Your task to perform on an android device: Open maps Image 0: 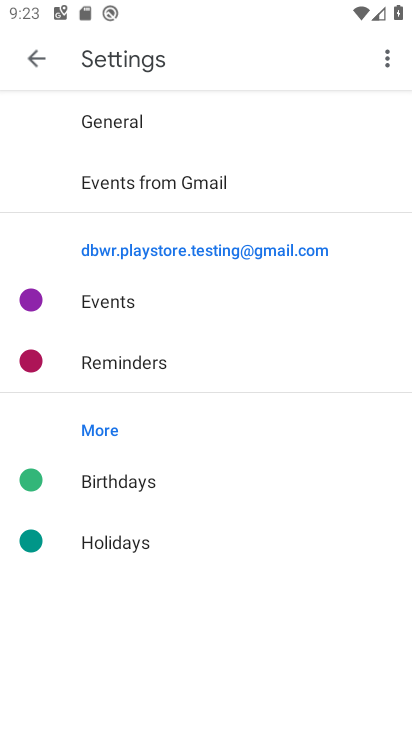
Step 0: press home button
Your task to perform on an android device: Open maps Image 1: 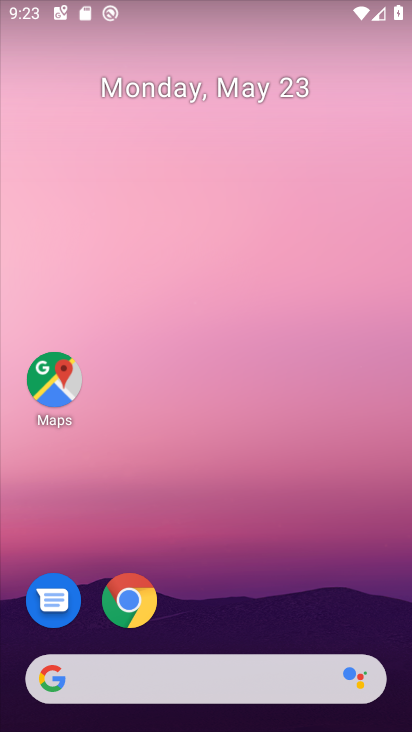
Step 1: drag from (206, 698) to (199, 144)
Your task to perform on an android device: Open maps Image 2: 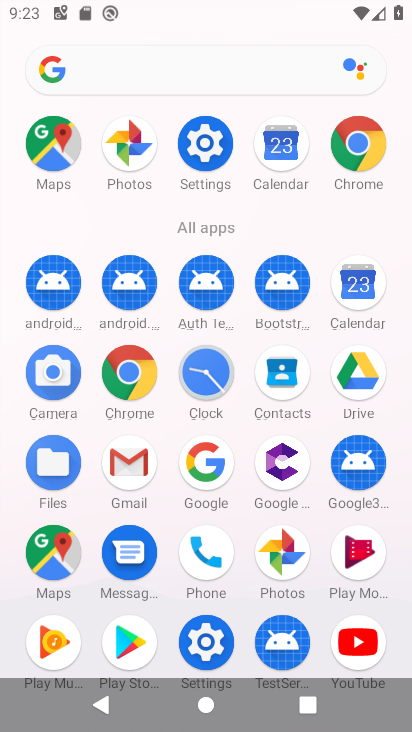
Step 2: click (47, 557)
Your task to perform on an android device: Open maps Image 3: 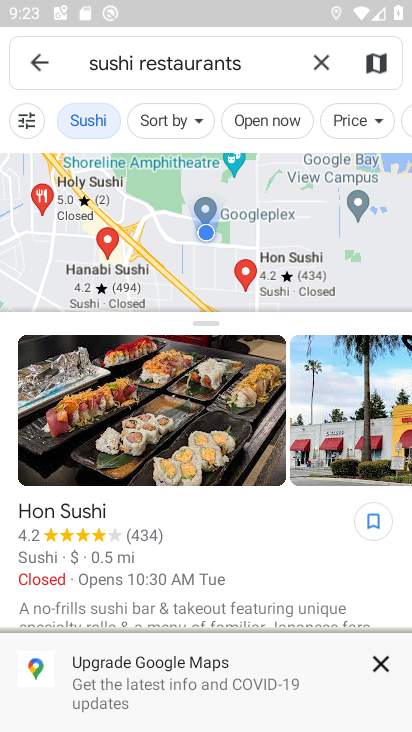
Step 3: task complete